Your task to perform on an android device: change text size in settings app Image 0: 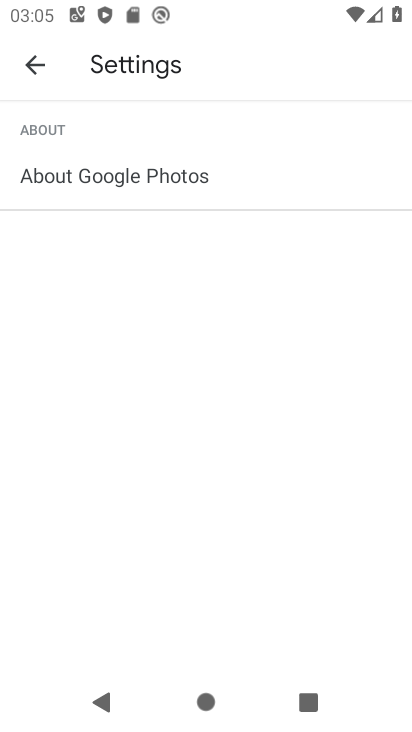
Step 0: press home button
Your task to perform on an android device: change text size in settings app Image 1: 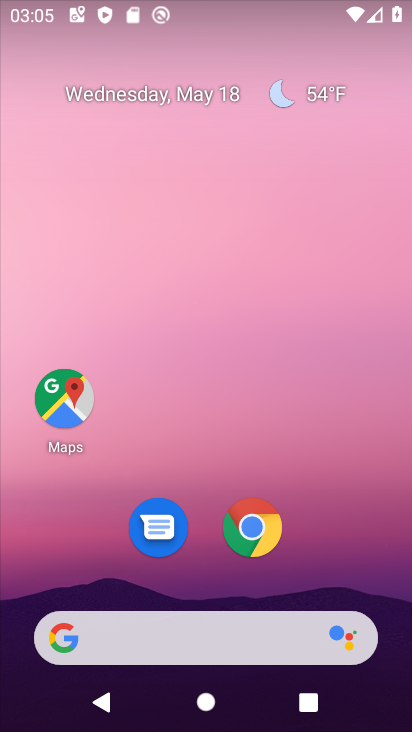
Step 1: drag from (205, 591) to (339, 1)
Your task to perform on an android device: change text size in settings app Image 2: 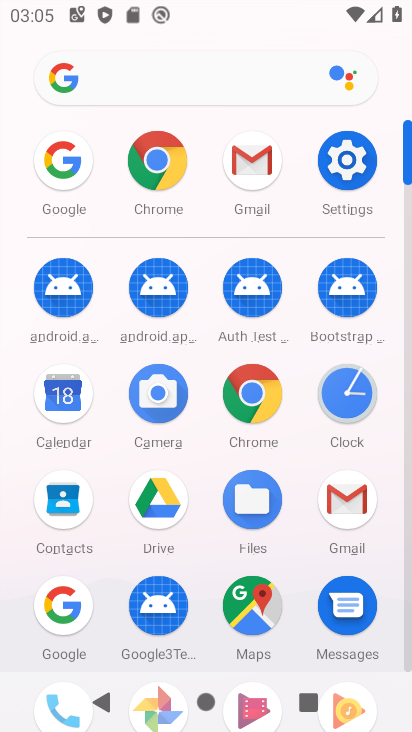
Step 2: click (348, 186)
Your task to perform on an android device: change text size in settings app Image 3: 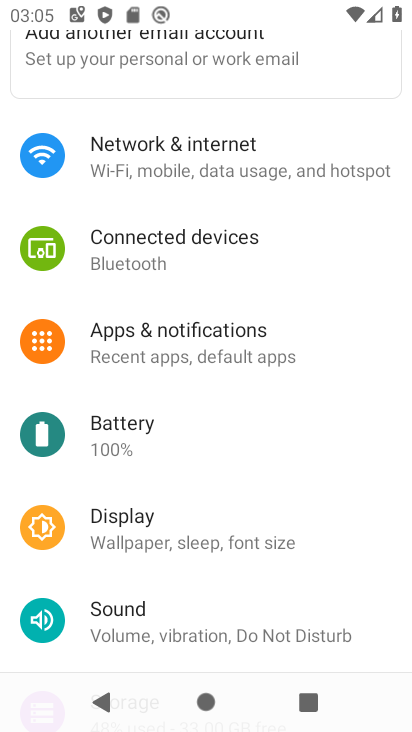
Step 3: drag from (161, 519) to (143, 159)
Your task to perform on an android device: change text size in settings app Image 4: 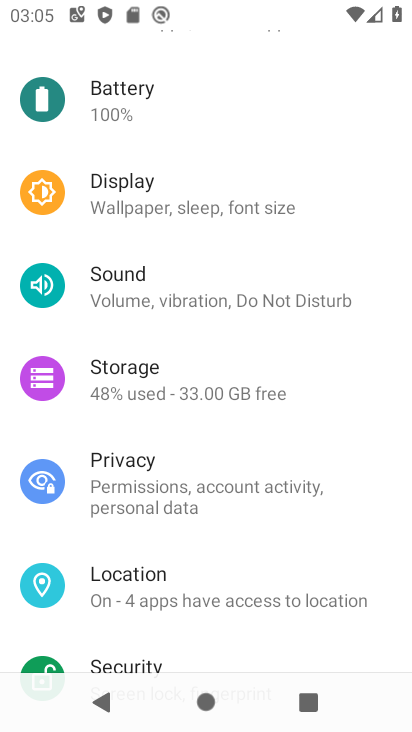
Step 4: drag from (195, 510) to (183, 394)
Your task to perform on an android device: change text size in settings app Image 5: 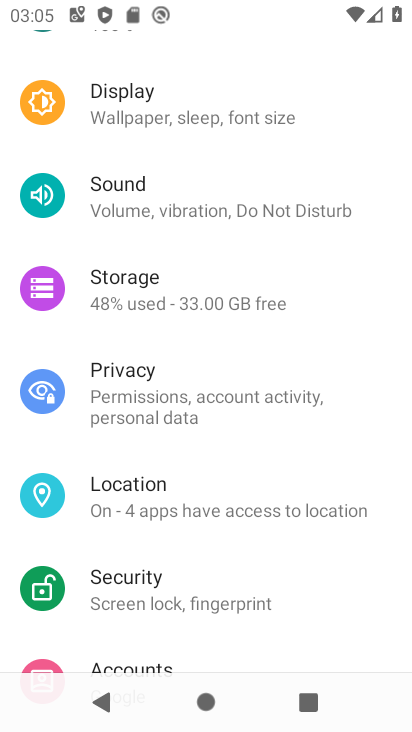
Step 5: click (174, 119)
Your task to perform on an android device: change text size in settings app Image 6: 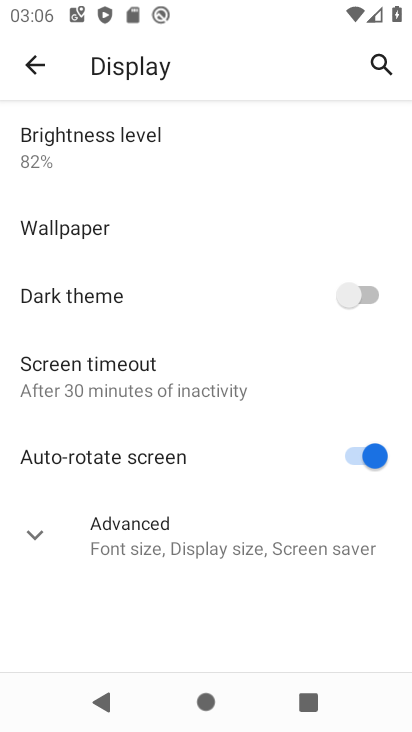
Step 6: task complete